Your task to perform on an android device: turn on priority inbox in the gmail app Image 0: 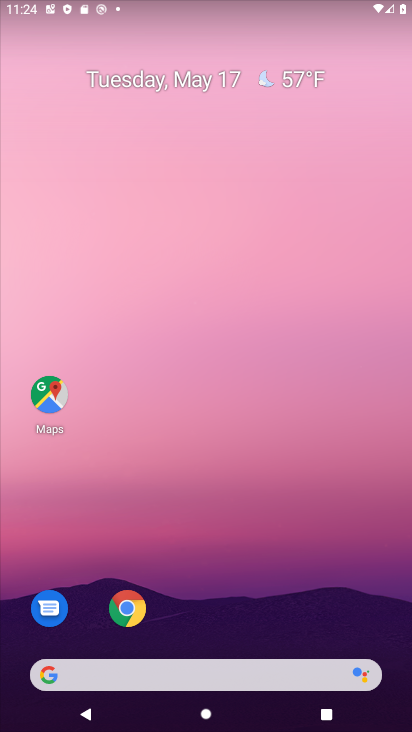
Step 0: drag from (197, 639) to (286, 8)
Your task to perform on an android device: turn on priority inbox in the gmail app Image 1: 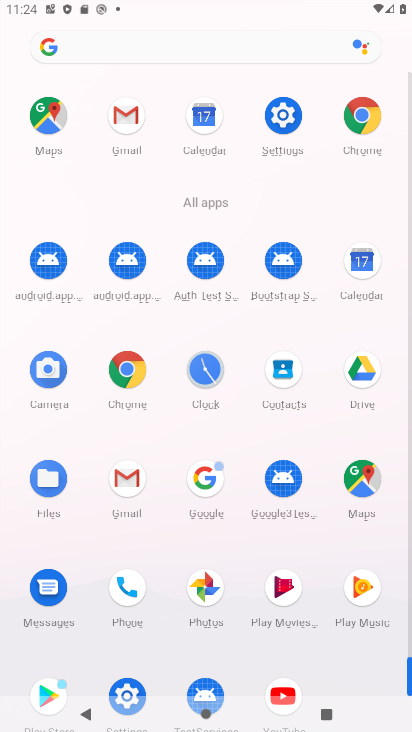
Step 1: click (122, 489)
Your task to perform on an android device: turn on priority inbox in the gmail app Image 2: 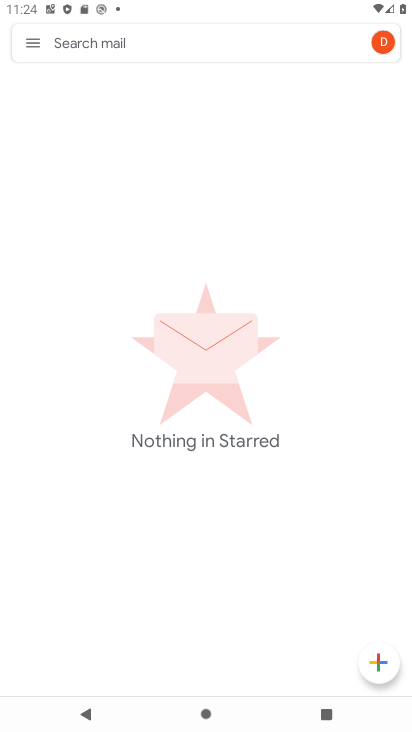
Step 2: click (24, 38)
Your task to perform on an android device: turn on priority inbox in the gmail app Image 3: 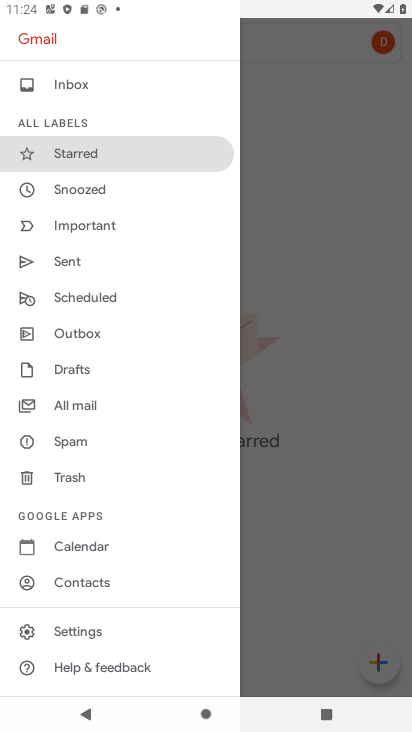
Step 3: click (77, 635)
Your task to perform on an android device: turn on priority inbox in the gmail app Image 4: 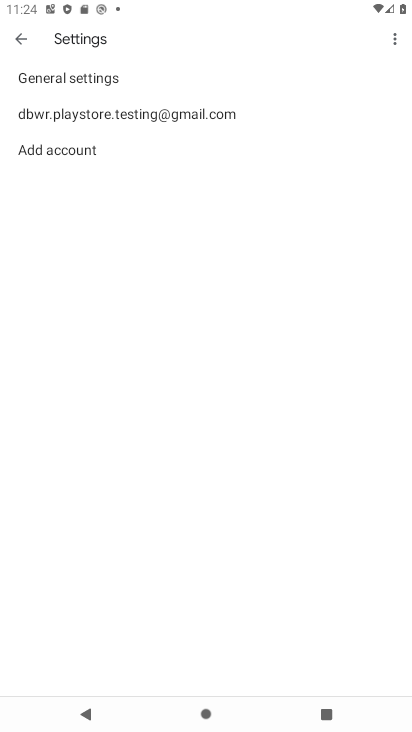
Step 4: click (80, 117)
Your task to perform on an android device: turn on priority inbox in the gmail app Image 5: 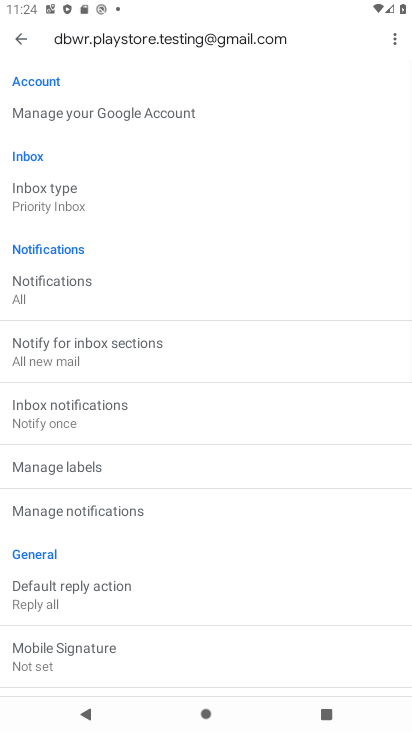
Step 5: click (76, 196)
Your task to perform on an android device: turn on priority inbox in the gmail app Image 6: 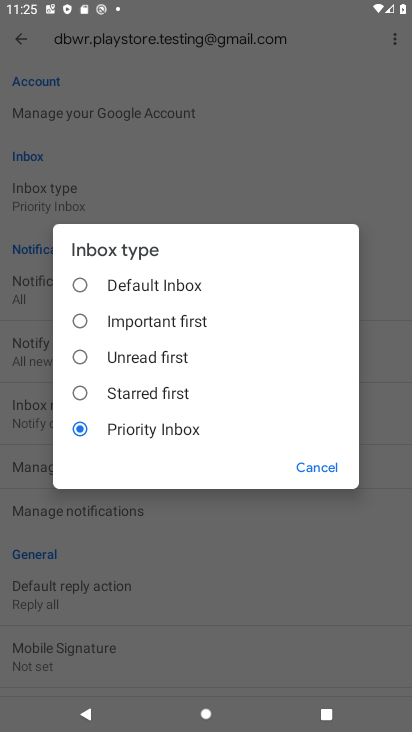
Step 6: task complete